Your task to perform on an android device: Open network settings Image 0: 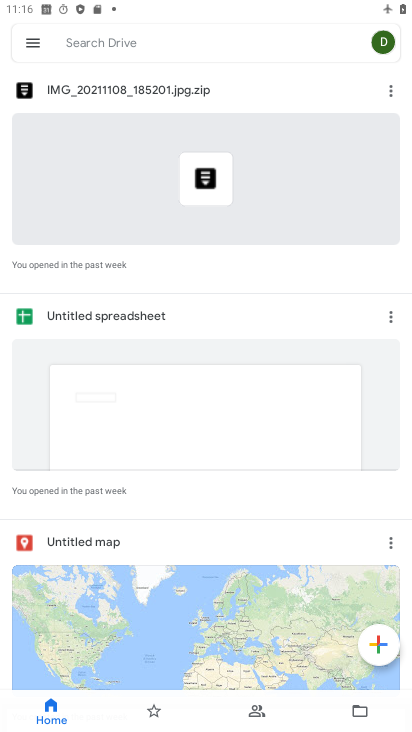
Step 0: drag from (222, 612) to (297, 215)
Your task to perform on an android device: Open network settings Image 1: 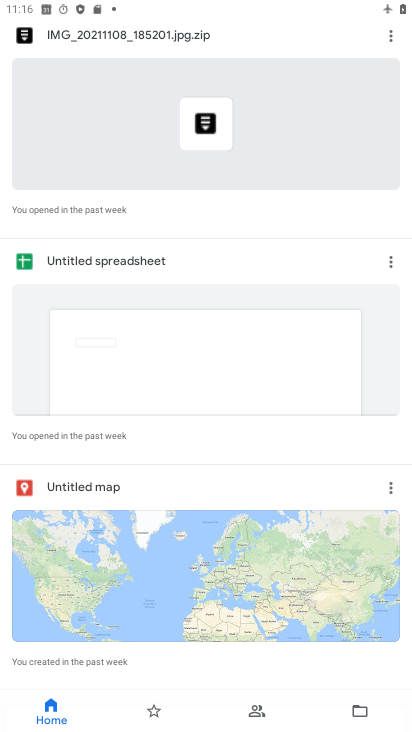
Step 1: drag from (267, 246) to (296, 595)
Your task to perform on an android device: Open network settings Image 2: 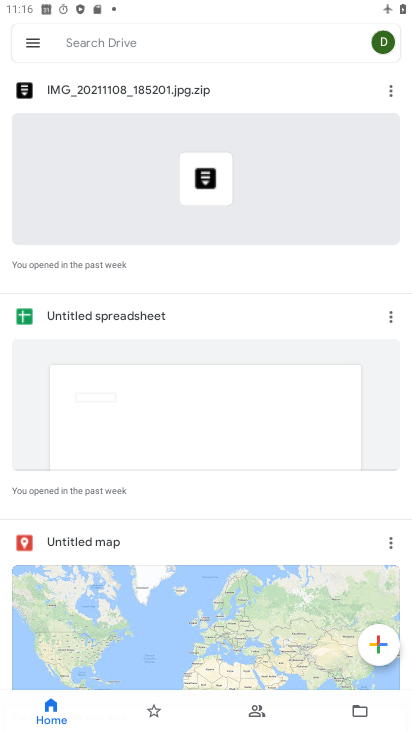
Step 2: drag from (234, 602) to (215, 262)
Your task to perform on an android device: Open network settings Image 3: 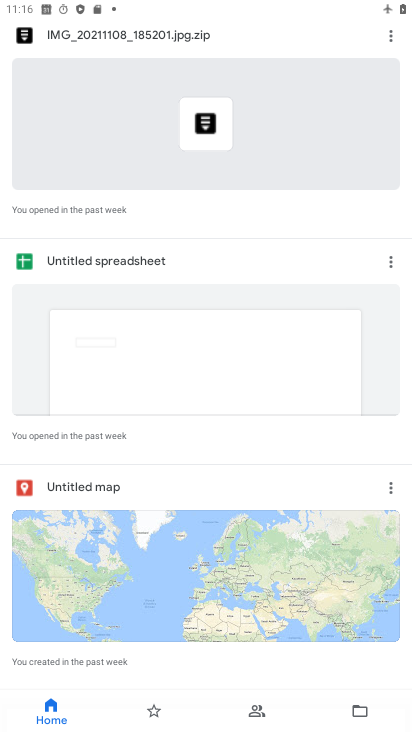
Step 3: drag from (118, 122) to (218, 657)
Your task to perform on an android device: Open network settings Image 4: 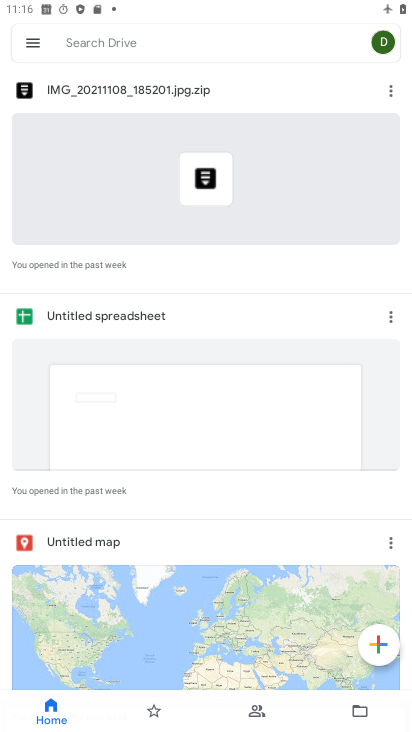
Step 4: press home button
Your task to perform on an android device: Open network settings Image 5: 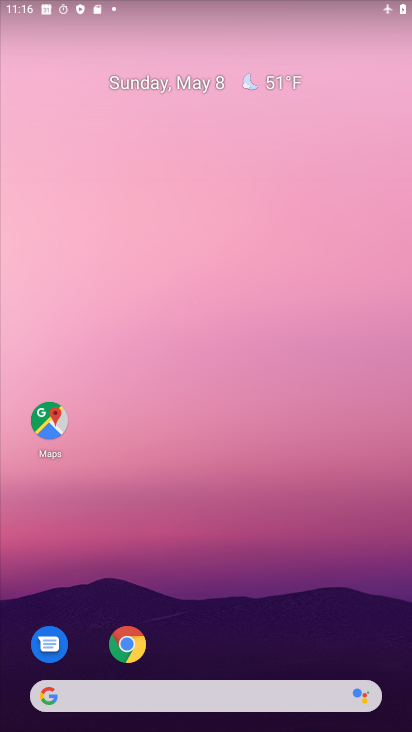
Step 5: drag from (194, 621) to (265, 123)
Your task to perform on an android device: Open network settings Image 6: 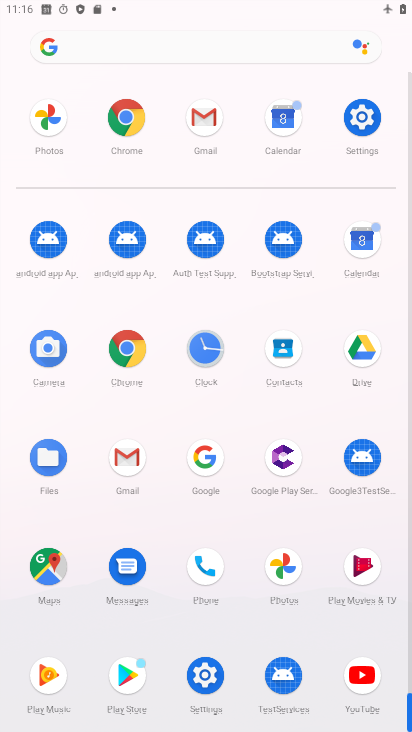
Step 6: click (206, 682)
Your task to perform on an android device: Open network settings Image 7: 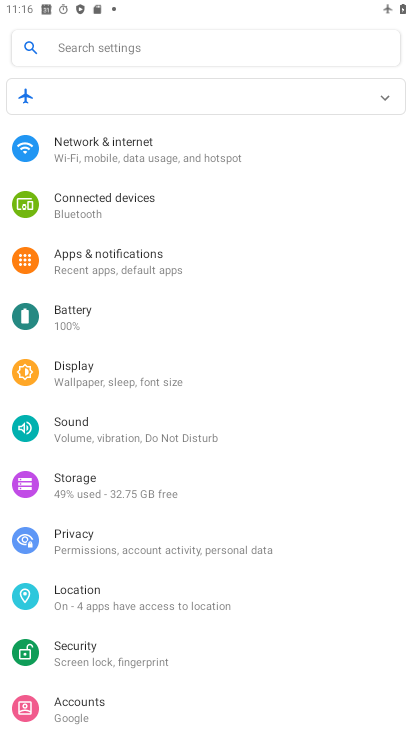
Step 7: drag from (280, 657) to (301, 257)
Your task to perform on an android device: Open network settings Image 8: 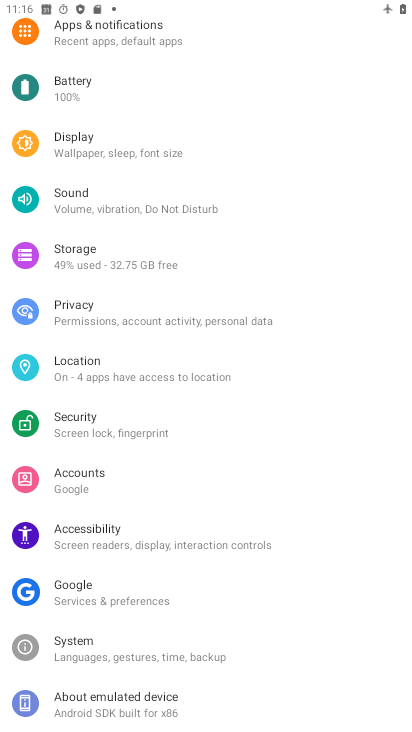
Step 8: drag from (161, 102) to (291, 712)
Your task to perform on an android device: Open network settings Image 9: 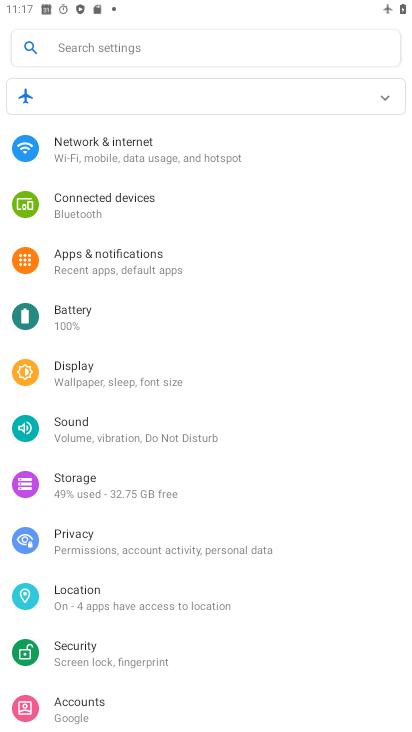
Step 9: click (118, 155)
Your task to perform on an android device: Open network settings Image 10: 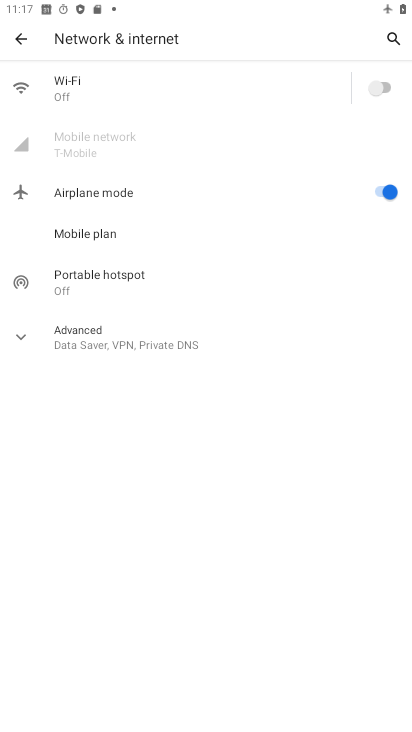
Step 10: task complete